Your task to perform on an android device: open chrome privacy settings Image 0: 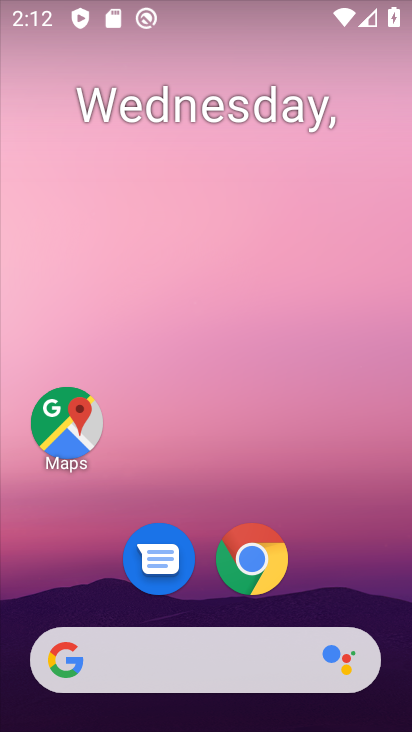
Step 0: drag from (380, 593) to (372, 124)
Your task to perform on an android device: open chrome privacy settings Image 1: 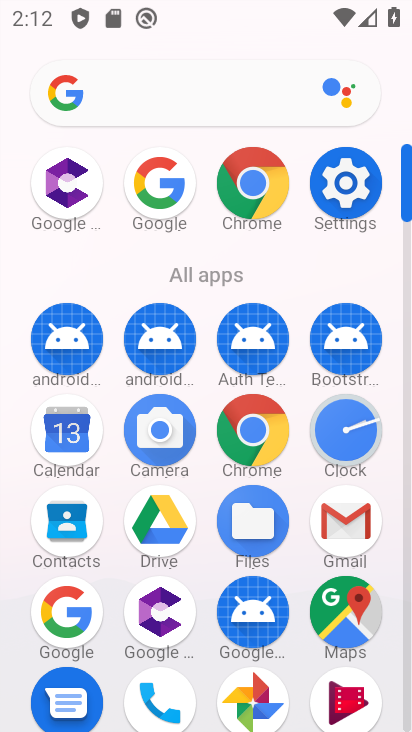
Step 1: click (260, 438)
Your task to perform on an android device: open chrome privacy settings Image 2: 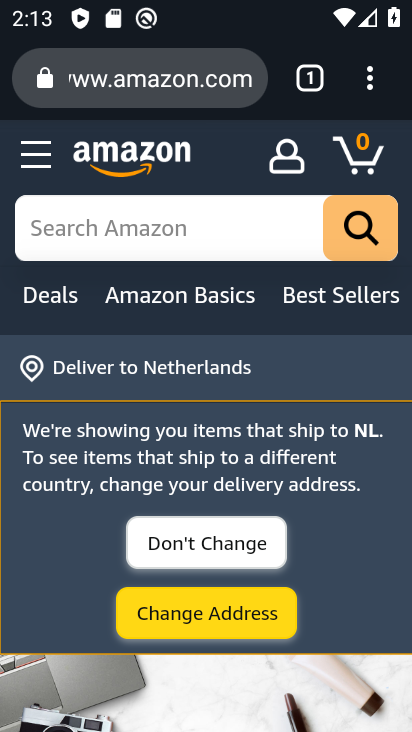
Step 2: click (374, 86)
Your task to perform on an android device: open chrome privacy settings Image 3: 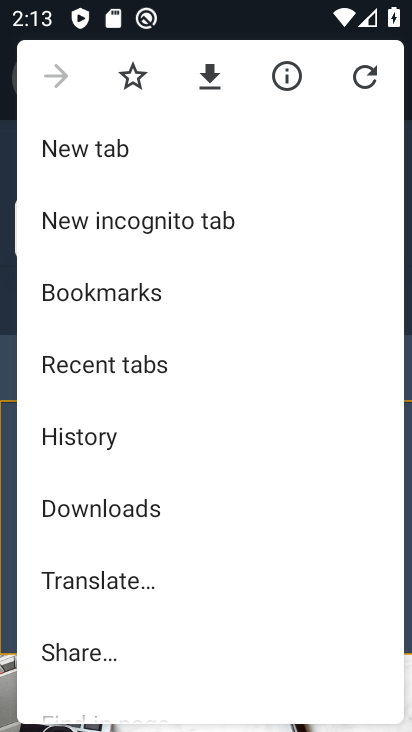
Step 3: drag from (295, 485) to (312, 389)
Your task to perform on an android device: open chrome privacy settings Image 4: 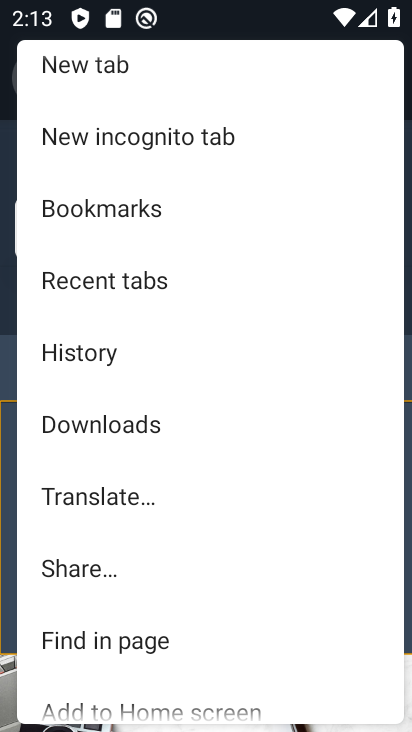
Step 4: drag from (315, 496) to (318, 378)
Your task to perform on an android device: open chrome privacy settings Image 5: 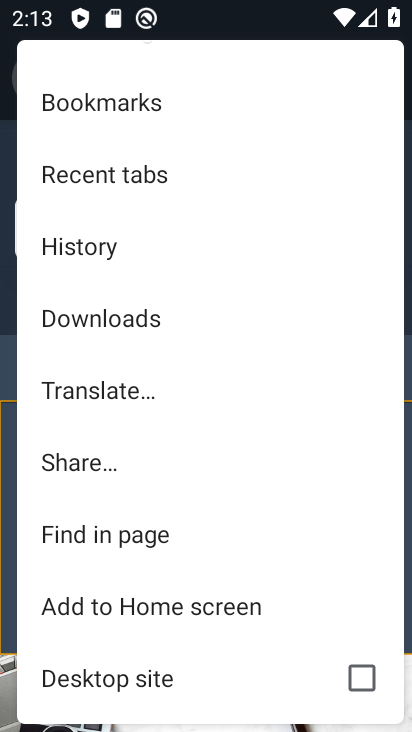
Step 5: drag from (318, 485) to (318, 376)
Your task to perform on an android device: open chrome privacy settings Image 6: 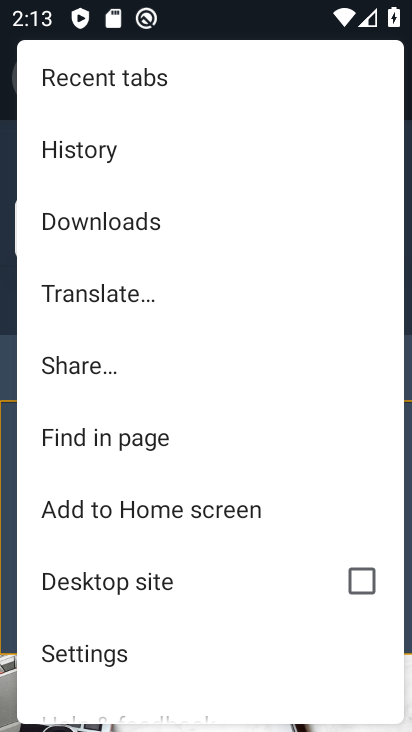
Step 6: drag from (290, 472) to (291, 328)
Your task to perform on an android device: open chrome privacy settings Image 7: 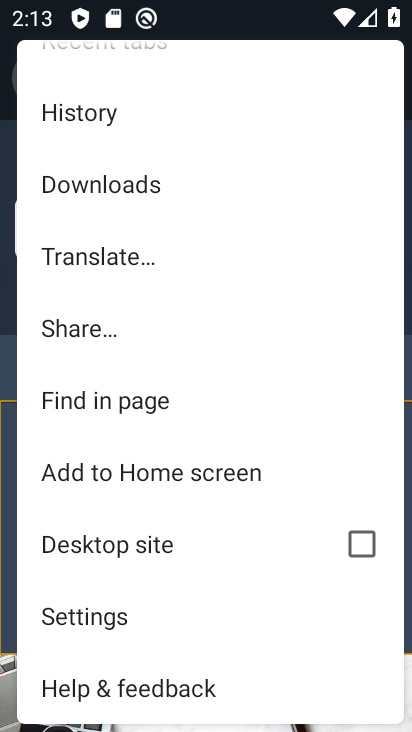
Step 7: click (122, 612)
Your task to perform on an android device: open chrome privacy settings Image 8: 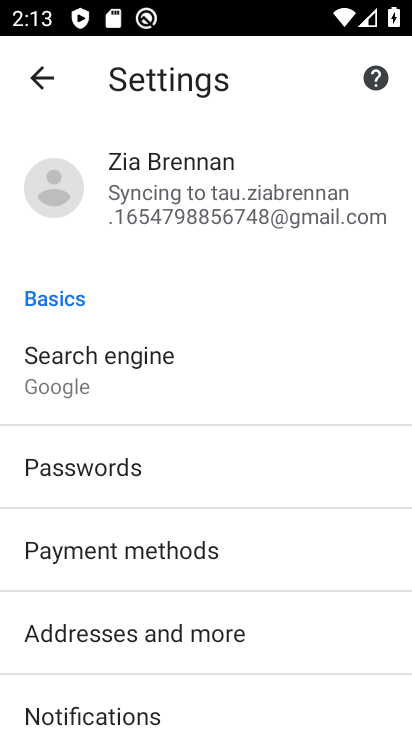
Step 8: drag from (296, 510) to (321, 377)
Your task to perform on an android device: open chrome privacy settings Image 9: 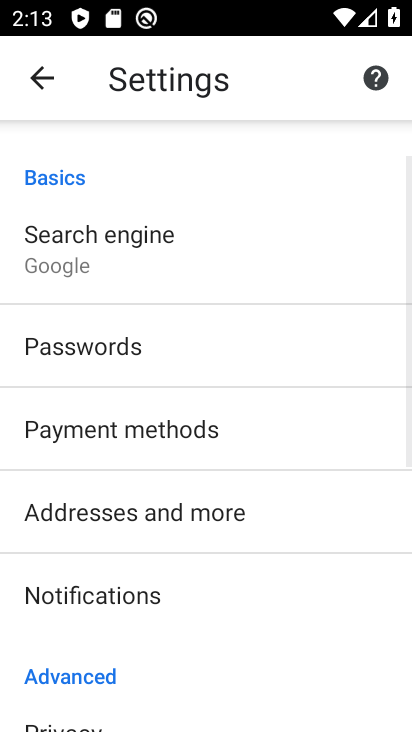
Step 9: drag from (324, 470) to (329, 358)
Your task to perform on an android device: open chrome privacy settings Image 10: 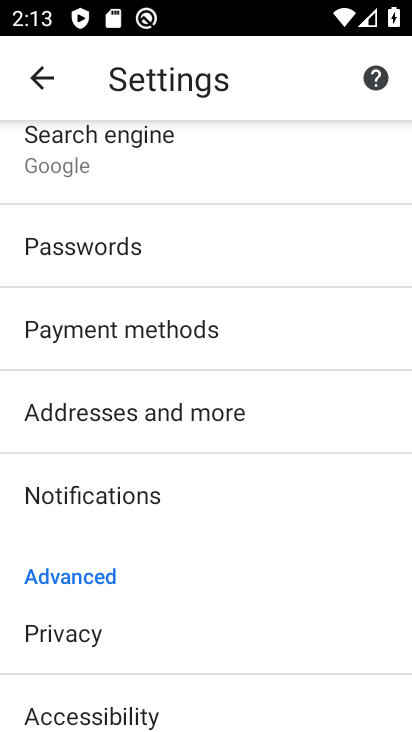
Step 10: drag from (312, 514) to (324, 376)
Your task to perform on an android device: open chrome privacy settings Image 11: 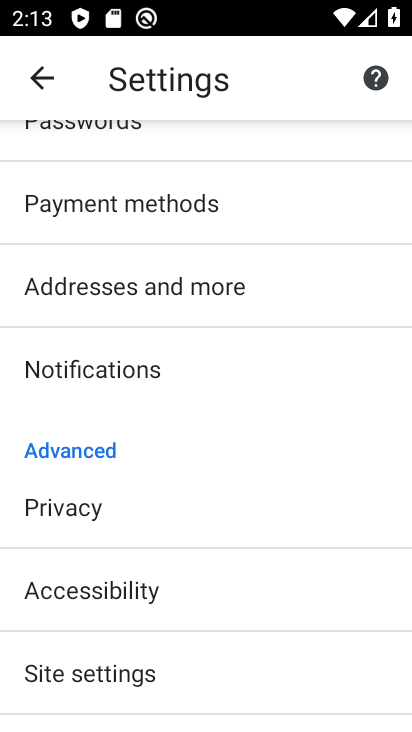
Step 11: drag from (321, 519) to (320, 366)
Your task to perform on an android device: open chrome privacy settings Image 12: 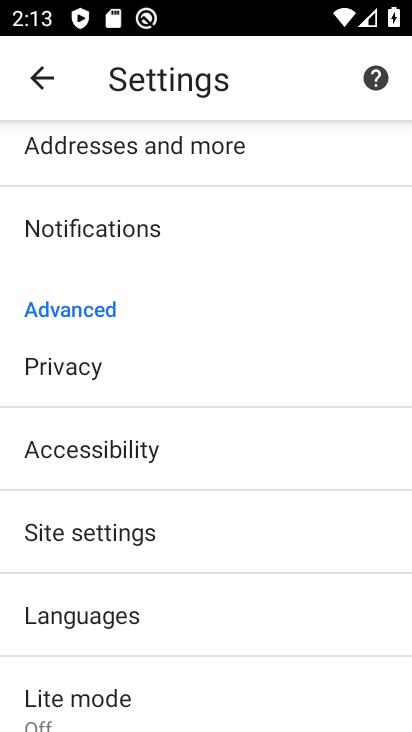
Step 12: drag from (314, 519) to (316, 269)
Your task to perform on an android device: open chrome privacy settings Image 13: 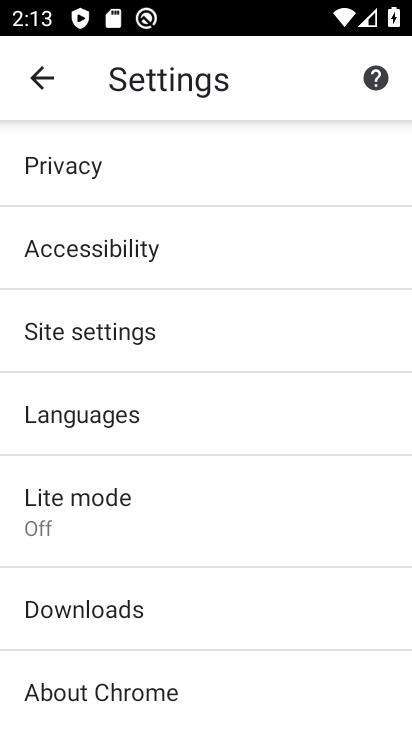
Step 13: drag from (313, 240) to (310, 407)
Your task to perform on an android device: open chrome privacy settings Image 14: 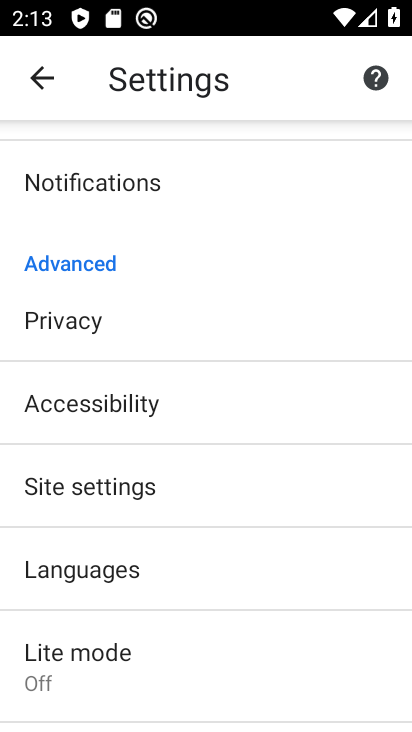
Step 14: drag from (303, 266) to (302, 433)
Your task to perform on an android device: open chrome privacy settings Image 15: 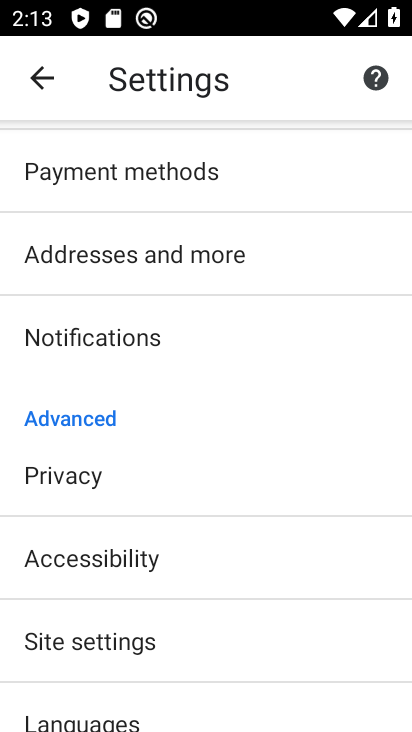
Step 15: click (205, 487)
Your task to perform on an android device: open chrome privacy settings Image 16: 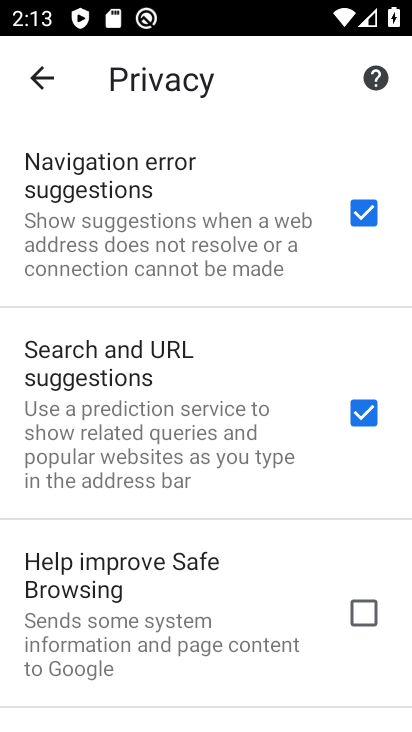
Step 16: task complete